Your task to perform on an android device: turn vacation reply on in the gmail app Image 0: 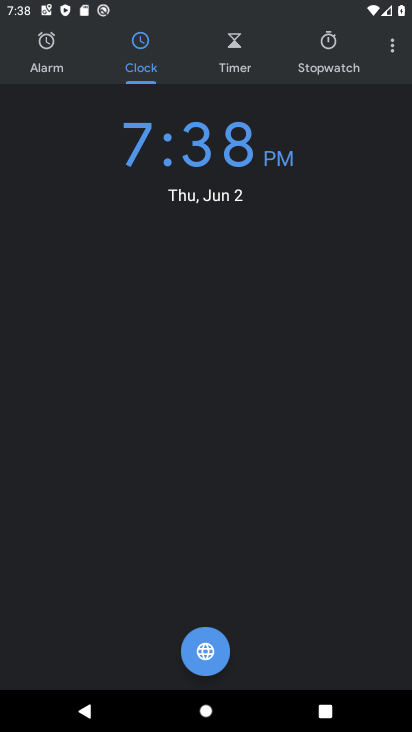
Step 0: press home button
Your task to perform on an android device: turn vacation reply on in the gmail app Image 1: 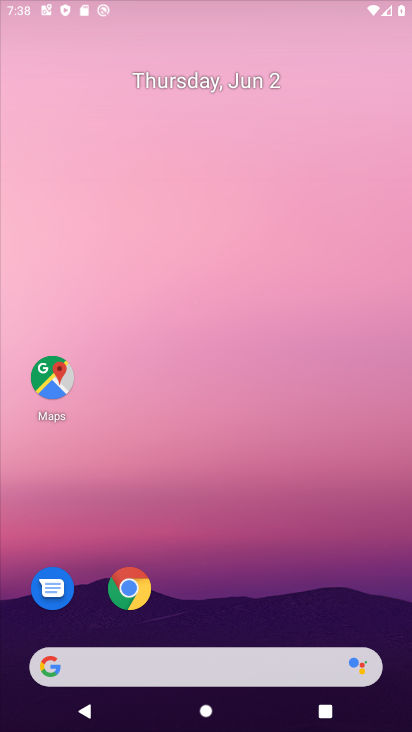
Step 1: drag from (191, 473) to (156, 102)
Your task to perform on an android device: turn vacation reply on in the gmail app Image 2: 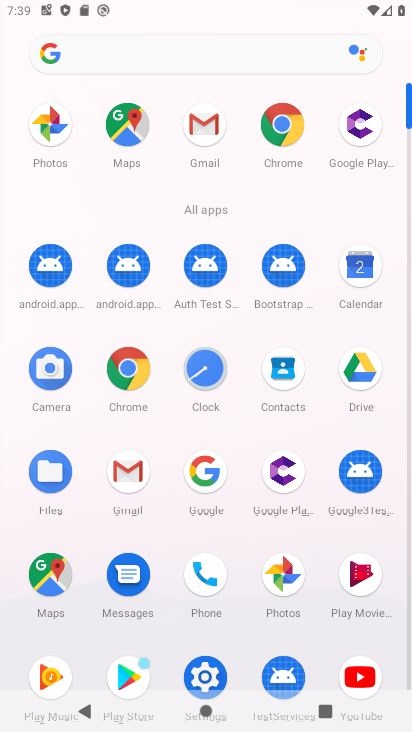
Step 2: drag from (197, 664) to (254, 317)
Your task to perform on an android device: turn vacation reply on in the gmail app Image 3: 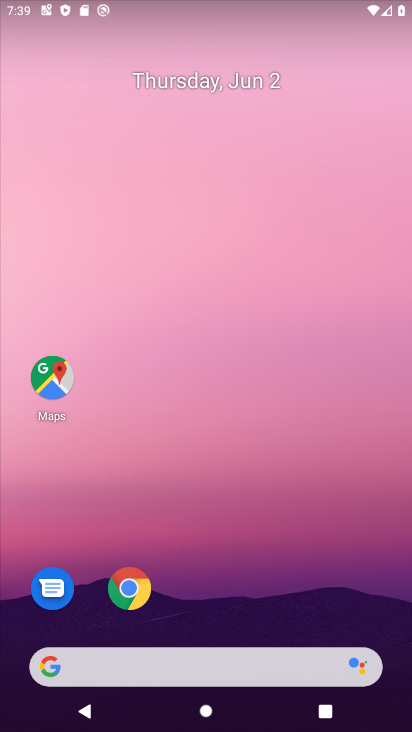
Step 3: drag from (218, 537) to (262, 0)
Your task to perform on an android device: turn vacation reply on in the gmail app Image 4: 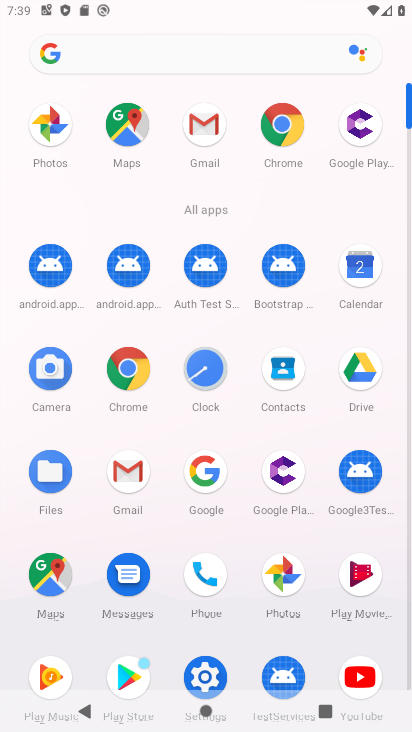
Step 4: click (206, 146)
Your task to perform on an android device: turn vacation reply on in the gmail app Image 5: 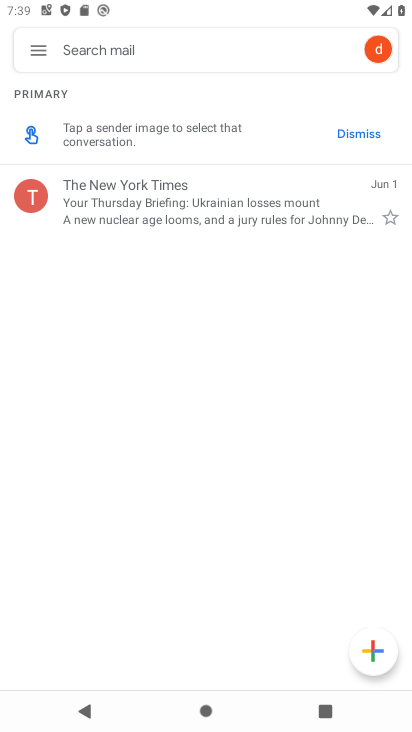
Step 5: click (43, 54)
Your task to perform on an android device: turn vacation reply on in the gmail app Image 6: 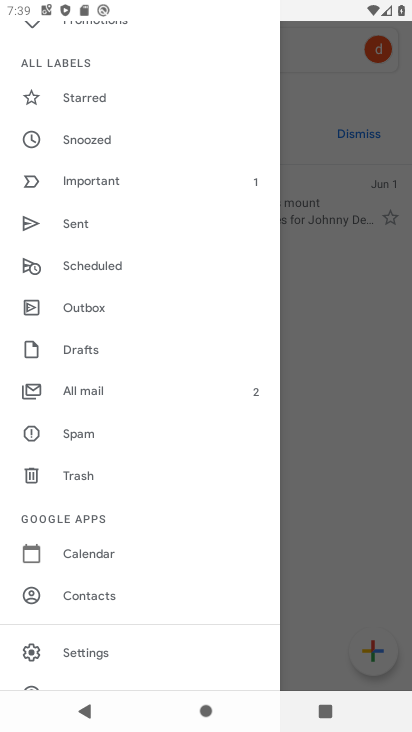
Step 6: click (87, 652)
Your task to perform on an android device: turn vacation reply on in the gmail app Image 7: 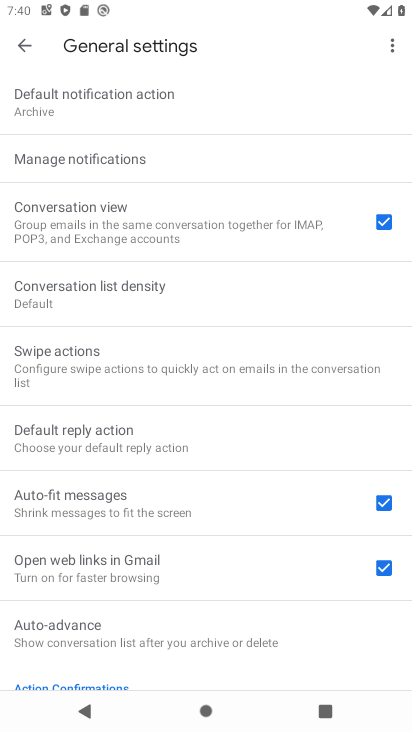
Step 7: click (23, 45)
Your task to perform on an android device: turn vacation reply on in the gmail app Image 8: 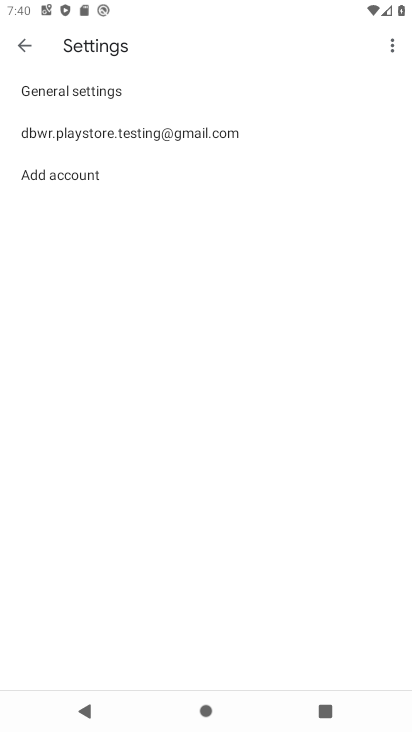
Step 8: click (160, 139)
Your task to perform on an android device: turn vacation reply on in the gmail app Image 9: 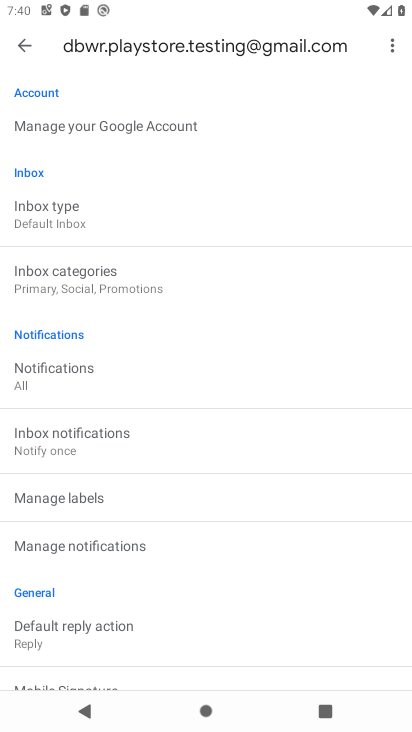
Step 9: drag from (108, 485) to (145, 171)
Your task to perform on an android device: turn vacation reply on in the gmail app Image 10: 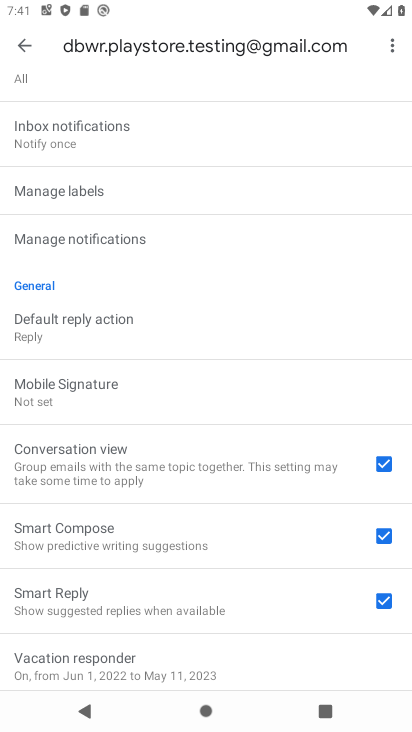
Step 10: drag from (234, 543) to (294, 168)
Your task to perform on an android device: turn vacation reply on in the gmail app Image 11: 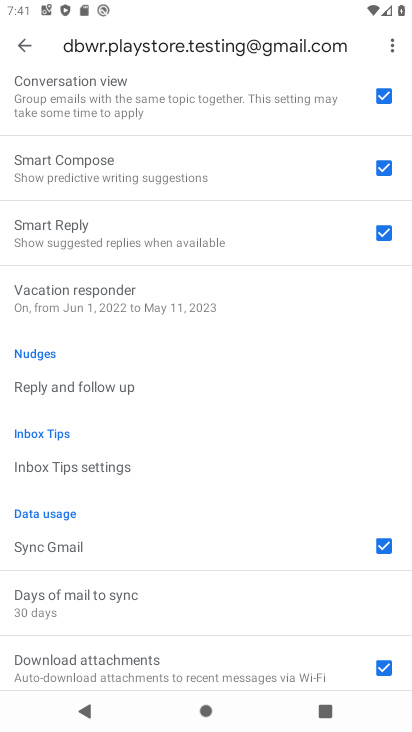
Step 11: click (231, 304)
Your task to perform on an android device: turn vacation reply on in the gmail app Image 12: 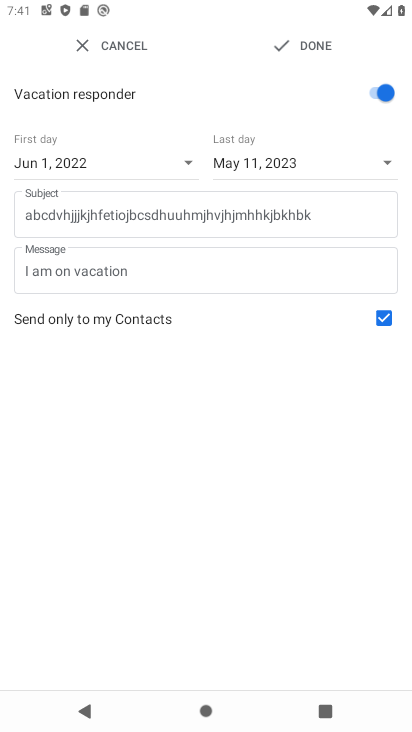
Step 12: task complete